Your task to perform on an android device: Clear all items from cart on bestbuy.com. Search for "usb-a to usb-b" on bestbuy.com, select the first entry, and add it to the cart. Image 0: 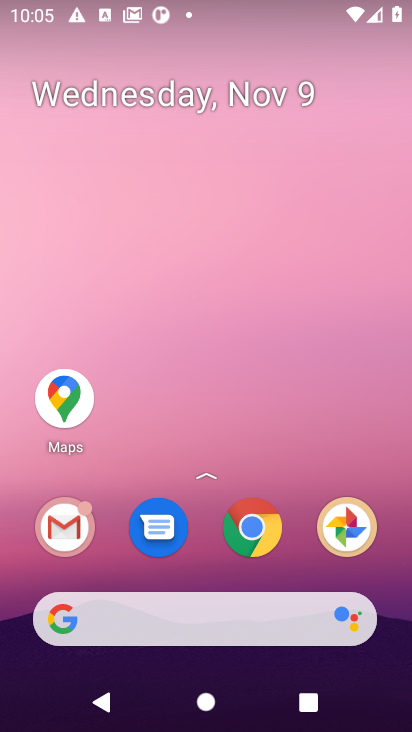
Step 0: click (249, 540)
Your task to perform on an android device: Clear all items from cart on bestbuy.com. Search for "usb-a to usb-b" on bestbuy.com, select the first entry, and add it to the cart. Image 1: 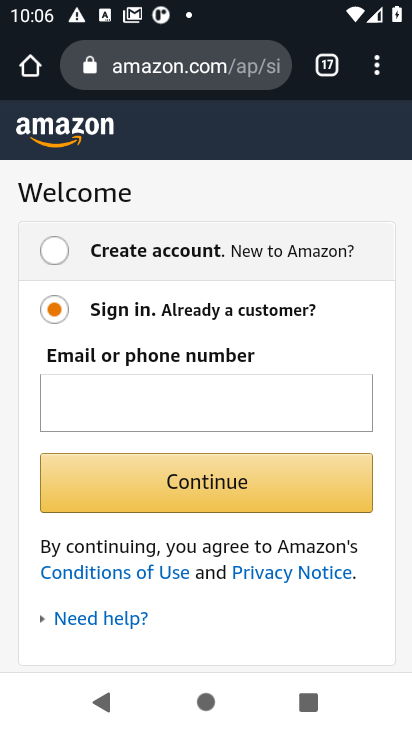
Step 1: click (176, 76)
Your task to perform on an android device: Clear all items from cart on bestbuy.com. Search for "usb-a to usb-b" on bestbuy.com, select the first entry, and add it to the cart. Image 2: 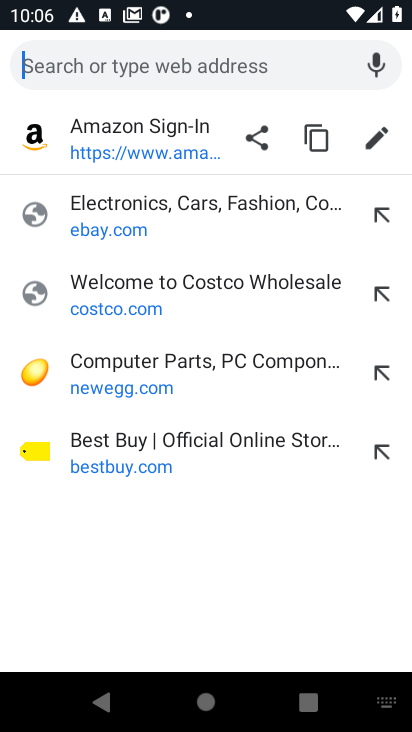
Step 2: click (106, 447)
Your task to perform on an android device: Clear all items from cart on bestbuy.com. Search for "usb-a to usb-b" on bestbuy.com, select the first entry, and add it to the cart. Image 3: 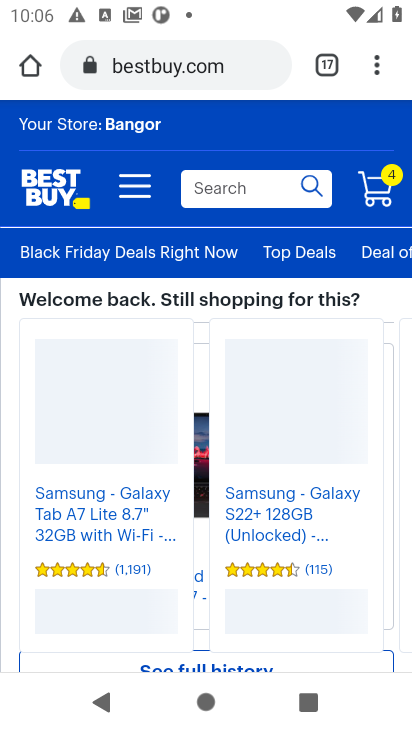
Step 3: click (381, 188)
Your task to perform on an android device: Clear all items from cart on bestbuy.com. Search for "usb-a to usb-b" on bestbuy.com, select the first entry, and add it to the cart. Image 4: 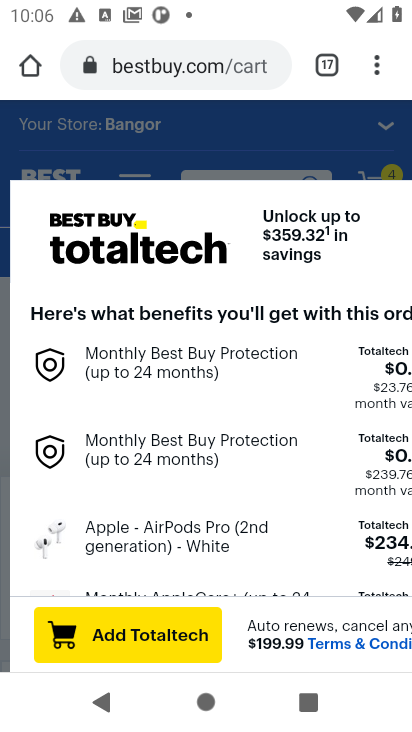
Step 4: click (267, 144)
Your task to perform on an android device: Clear all items from cart on bestbuy.com. Search for "usb-a to usb-b" on bestbuy.com, select the first entry, and add it to the cart. Image 5: 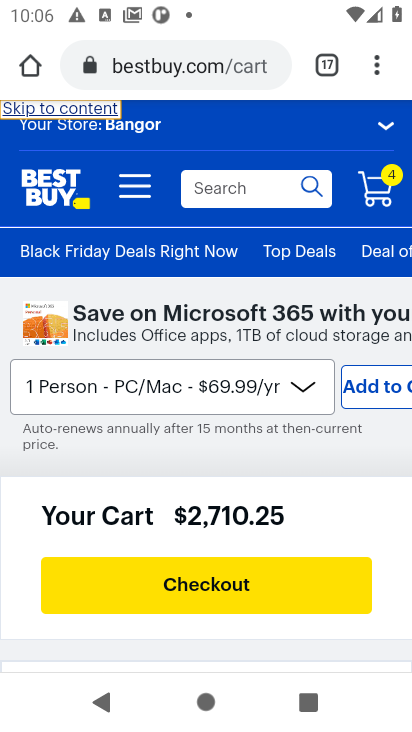
Step 5: drag from (185, 466) to (214, 243)
Your task to perform on an android device: Clear all items from cart on bestbuy.com. Search for "usb-a to usb-b" on bestbuy.com, select the first entry, and add it to the cart. Image 6: 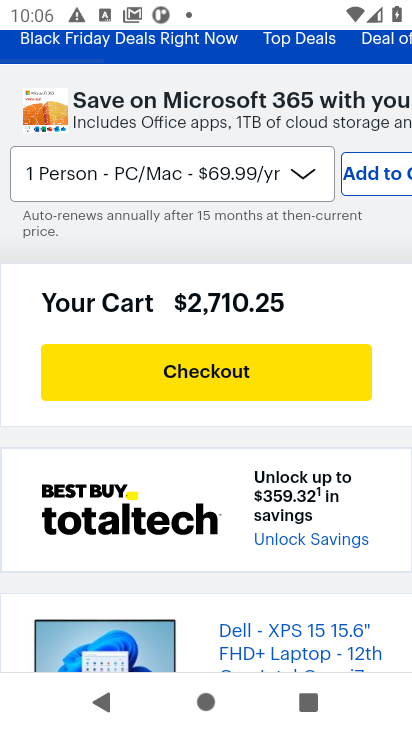
Step 6: drag from (168, 493) to (213, 216)
Your task to perform on an android device: Clear all items from cart on bestbuy.com. Search for "usb-a to usb-b" on bestbuy.com, select the first entry, and add it to the cart. Image 7: 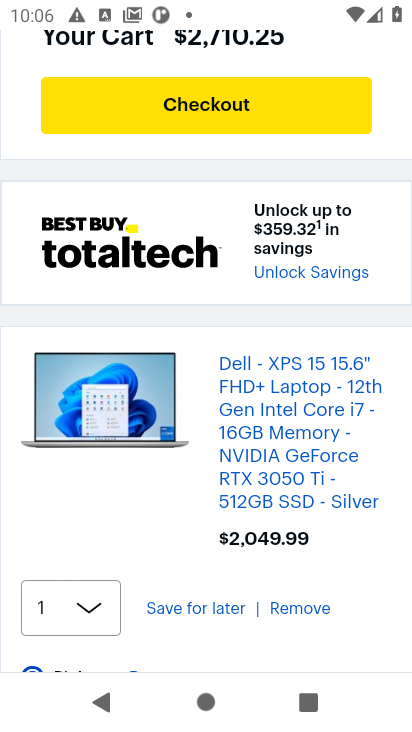
Step 7: drag from (279, 534) to (284, 320)
Your task to perform on an android device: Clear all items from cart on bestbuy.com. Search for "usb-a to usb-b" on bestbuy.com, select the first entry, and add it to the cart. Image 8: 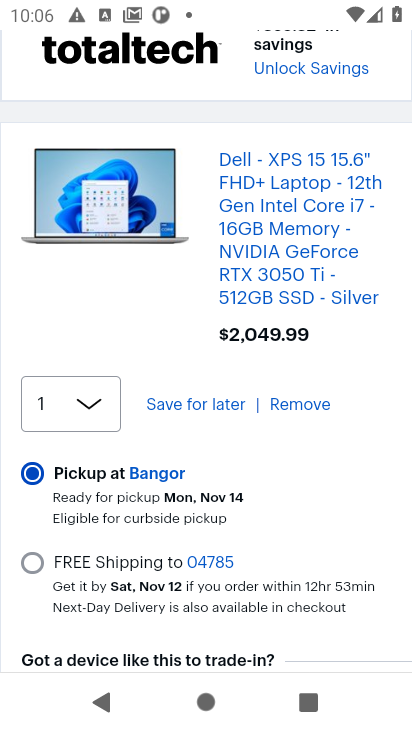
Step 8: click (296, 408)
Your task to perform on an android device: Clear all items from cart on bestbuy.com. Search for "usb-a to usb-b" on bestbuy.com, select the first entry, and add it to the cart. Image 9: 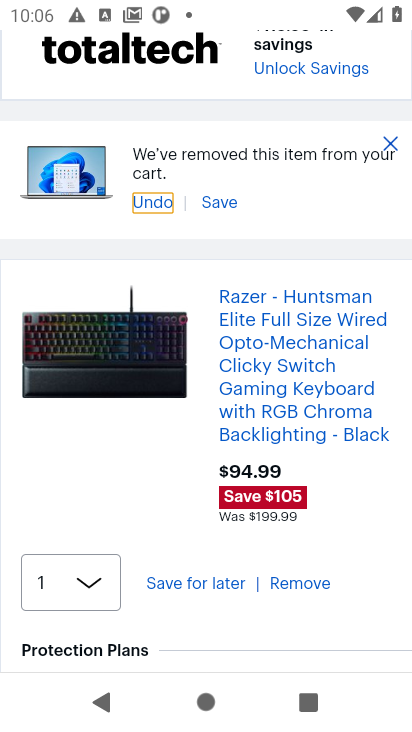
Step 9: click (294, 590)
Your task to perform on an android device: Clear all items from cart on bestbuy.com. Search for "usb-a to usb-b" on bestbuy.com, select the first entry, and add it to the cart. Image 10: 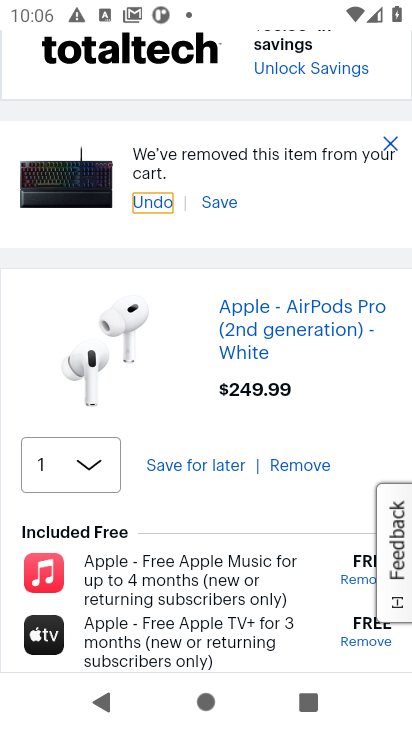
Step 10: click (302, 469)
Your task to perform on an android device: Clear all items from cart on bestbuy.com. Search for "usb-a to usb-b" on bestbuy.com, select the first entry, and add it to the cart. Image 11: 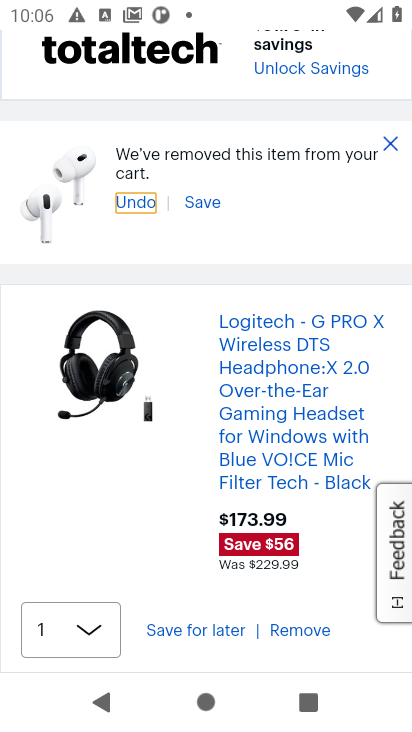
Step 11: click (283, 627)
Your task to perform on an android device: Clear all items from cart on bestbuy.com. Search for "usb-a to usb-b" on bestbuy.com, select the first entry, and add it to the cart. Image 12: 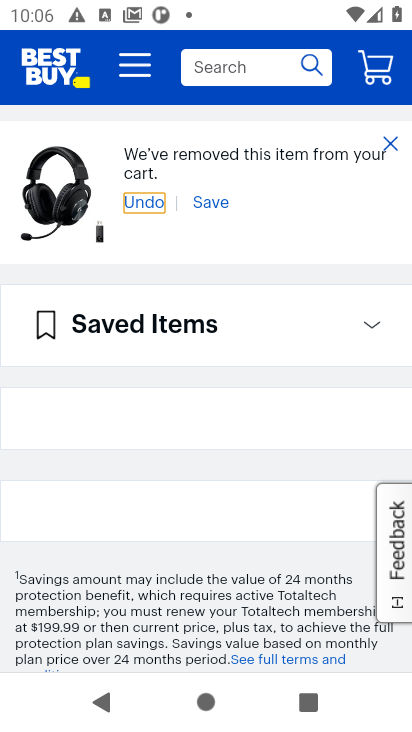
Step 12: drag from (203, 496) to (219, 295)
Your task to perform on an android device: Clear all items from cart on bestbuy.com. Search for "usb-a to usb-b" on bestbuy.com, select the first entry, and add it to the cart. Image 13: 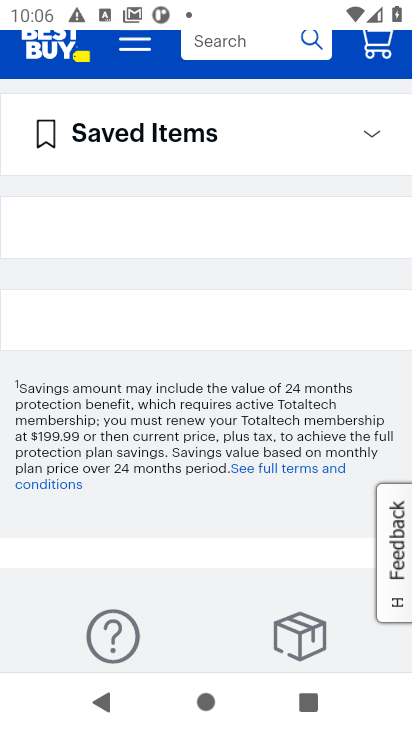
Step 13: drag from (219, 285) to (184, 698)
Your task to perform on an android device: Clear all items from cart on bestbuy.com. Search for "usb-a to usb-b" on bestbuy.com, select the first entry, and add it to the cart. Image 14: 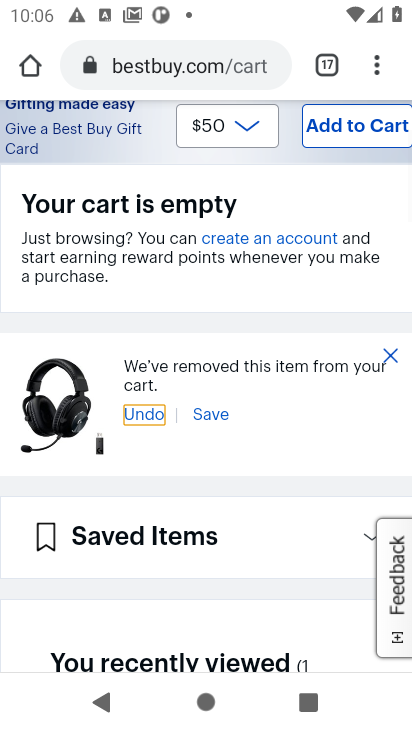
Step 14: drag from (218, 341) to (222, 524)
Your task to perform on an android device: Clear all items from cart on bestbuy.com. Search for "usb-a to usb-b" on bestbuy.com, select the first entry, and add it to the cart. Image 15: 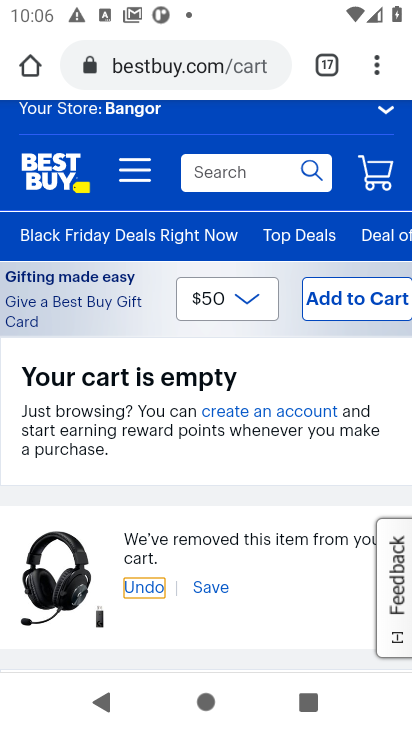
Step 15: click (224, 169)
Your task to perform on an android device: Clear all items from cart on bestbuy.com. Search for "usb-a to usb-b" on bestbuy.com, select the first entry, and add it to the cart. Image 16: 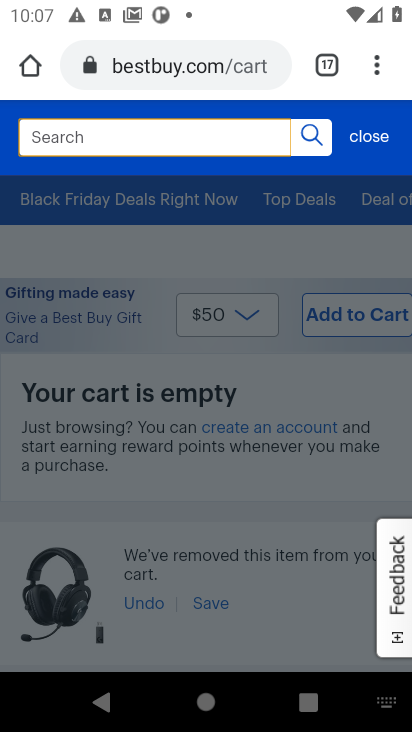
Step 16: type "usb-a to usb-b"
Your task to perform on an android device: Clear all items from cart on bestbuy.com. Search for "usb-a to usb-b" on bestbuy.com, select the first entry, and add it to the cart. Image 17: 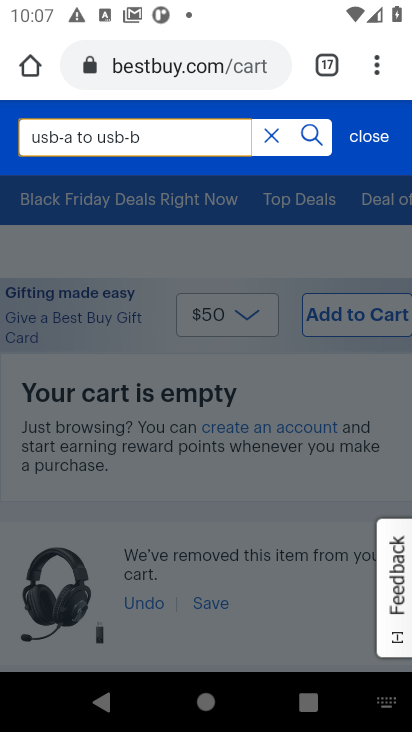
Step 17: click (304, 138)
Your task to perform on an android device: Clear all items from cart on bestbuy.com. Search for "usb-a to usb-b" on bestbuy.com, select the first entry, and add it to the cart. Image 18: 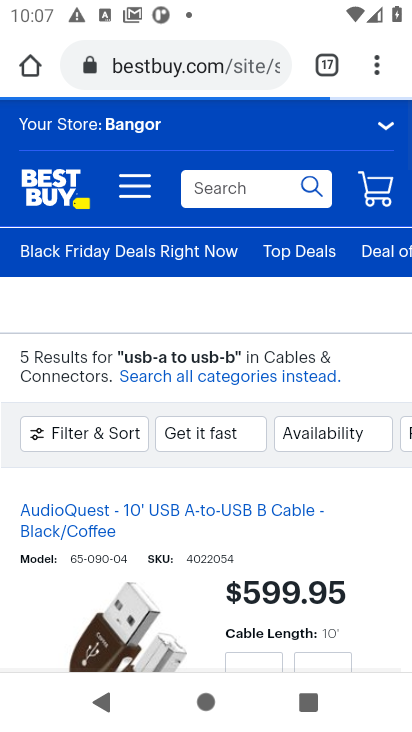
Step 18: drag from (170, 495) to (180, 324)
Your task to perform on an android device: Clear all items from cart on bestbuy.com. Search for "usb-a to usb-b" on bestbuy.com, select the first entry, and add it to the cart. Image 19: 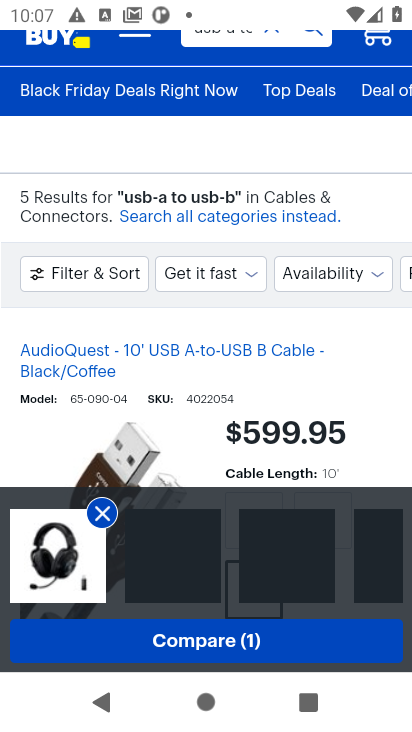
Step 19: drag from (182, 451) to (193, 281)
Your task to perform on an android device: Clear all items from cart on bestbuy.com. Search for "usb-a to usb-b" on bestbuy.com, select the first entry, and add it to the cart. Image 20: 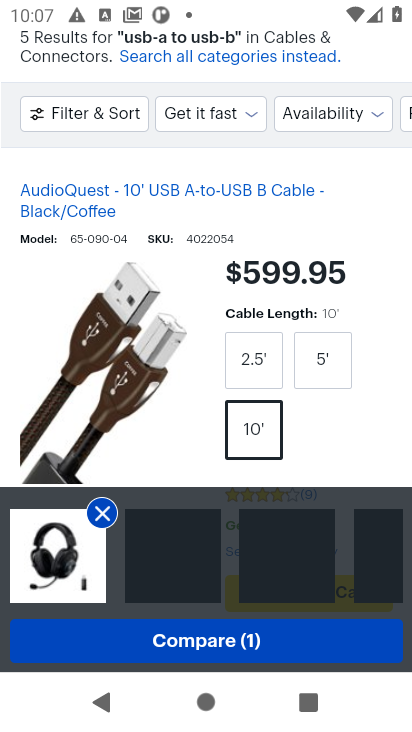
Step 20: drag from (137, 373) to (167, 210)
Your task to perform on an android device: Clear all items from cart on bestbuy.com. Search for "usb-a to usb-b" on bestbuy.com, select the first entry, and add it to the cart. Image 21: 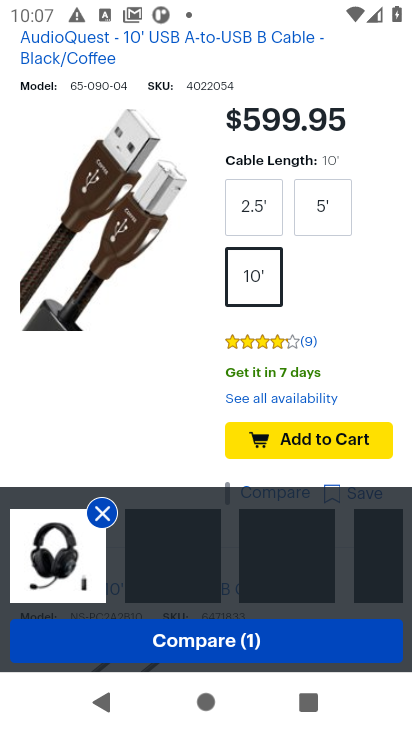
Step 21: click (286, 429)
Your task to perform on an android device: Clear all items from cart on bestbuy.com. Search for "usb-a to usb-b" on bestbuy.com, select the first entry, and add it to the cart. Image 22: 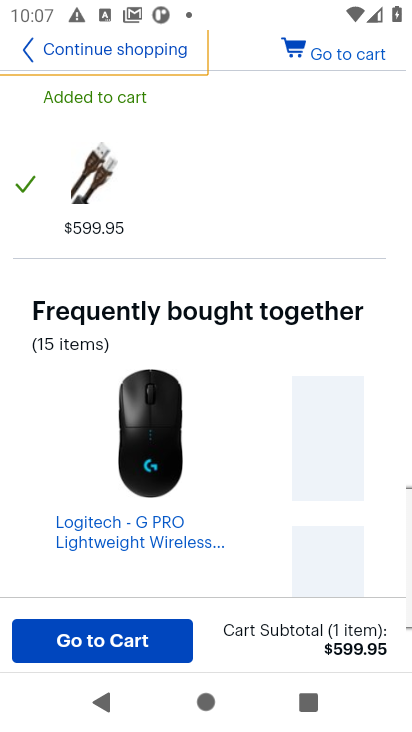
Step 22: task complete